Your task to perform on an android device: Open the map Image 0: 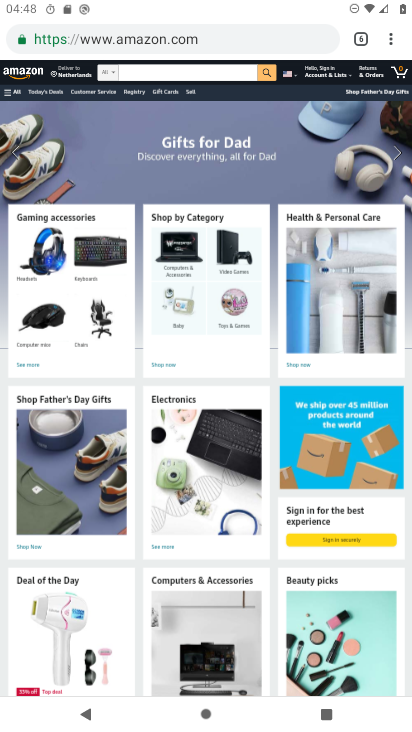
Step 0: press home button
Your task to perform on an android device: Open the map Image 1: 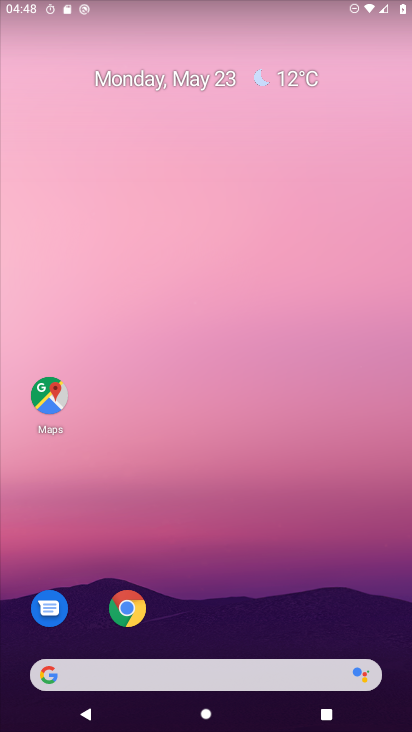
Step 1: click (57, 387)
Your task to perform on an android device: Open the map Image 2: 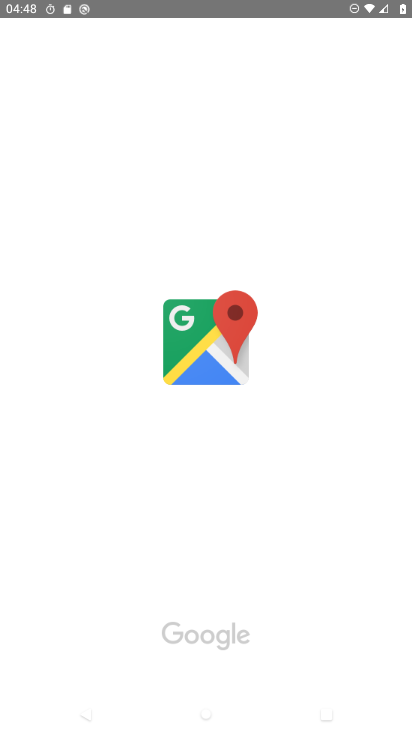
Step 2: task complete